Your task to perform on an android device: Open the calendar app, open the side menu, and click the "Day" option Image 0: 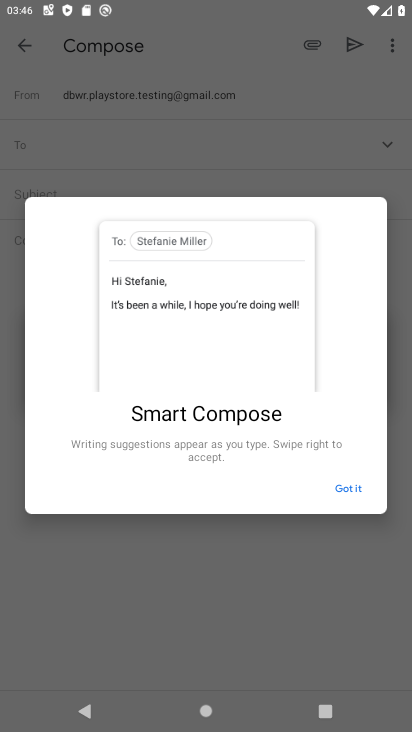
Step 0: press home button
Your task to perform on an android device: Open the calendar app, open the side menu, and click the "Day" option Image 1: 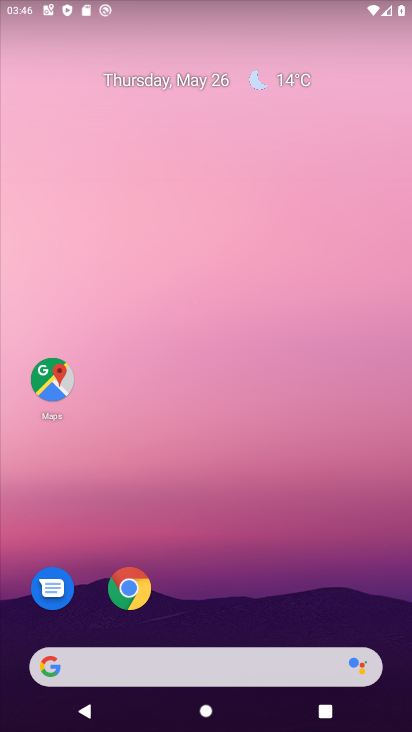
Step 1: drag from (262, 615) to (266, 176)
Your task to perform on an android device: Open the calendar app, open the side menu, and click the "Day" option Image 2: 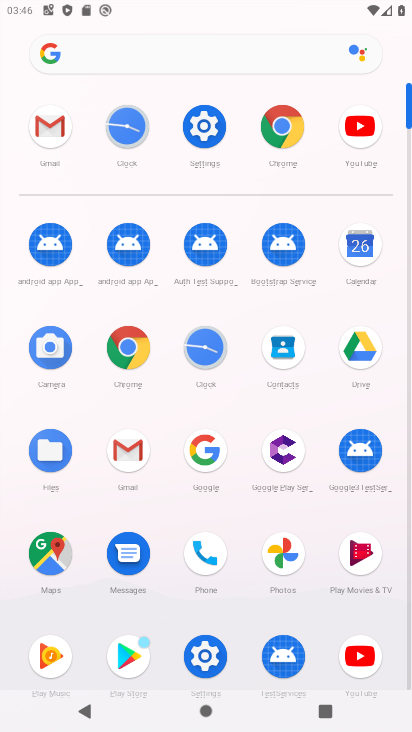
Step 2: click (205, 156)
Your task to perform on an android device: Open the calendar app, open the side menu, and click the "Day" option Image 3: 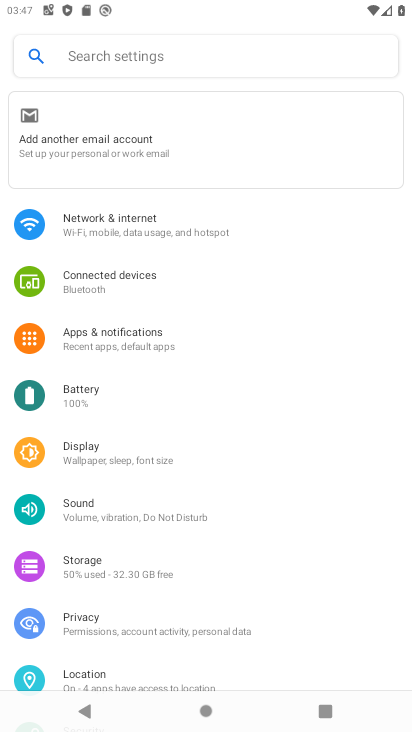
Step 3: press home button
Your task to perform on an android device: Open the calendar app, open the side menu, and click the "Day" option Image 4: 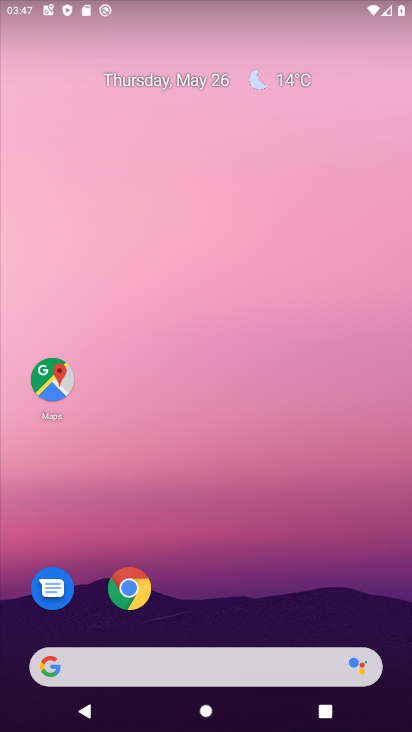
Step 4: drag from (287, 587) to (251, 110)
Your task to perform on an android device: Open the calendar app, open the side menu, and click the "Day" option Image 5: 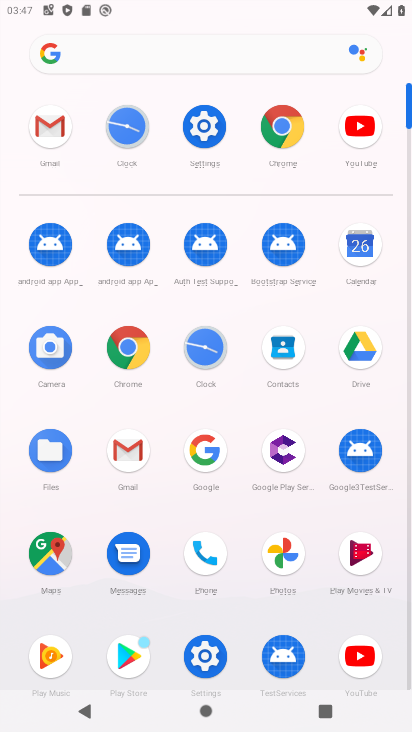
Step 5: click (358, 259)
Your task to perform on an android device: Open the calendar app, open the side menu, and click the "Day" option Image 6: 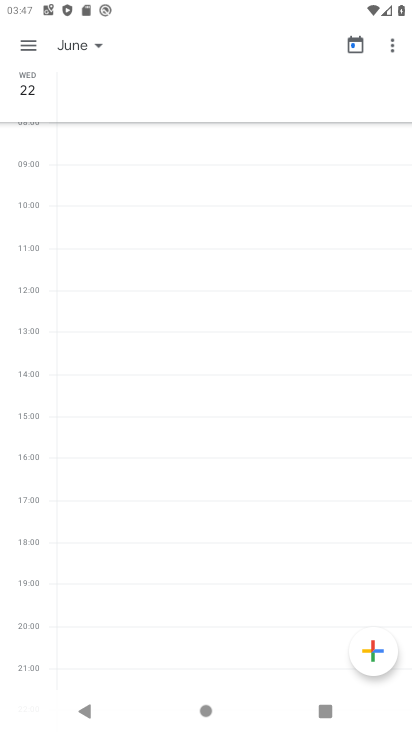
Step 6: click (32, 48)
Your task to perform on an android device: Open the calendar app, open the side menu, and click the "Day" option Image 7: 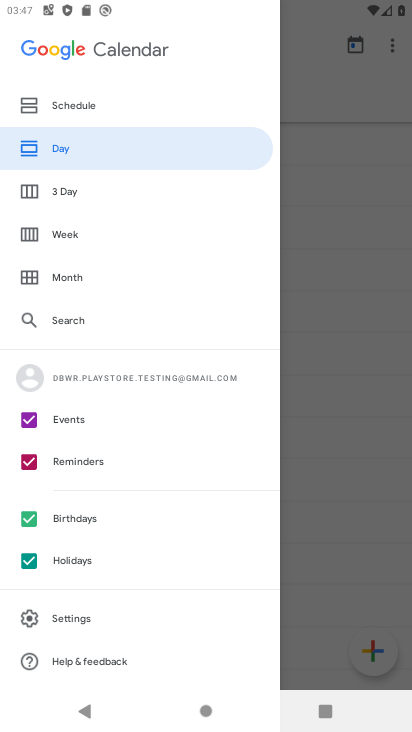
Step 7: click (98, 154)
Your task to perform on an android device: Open the calendar app, open the side menu, and click the "Day" option Image 8: 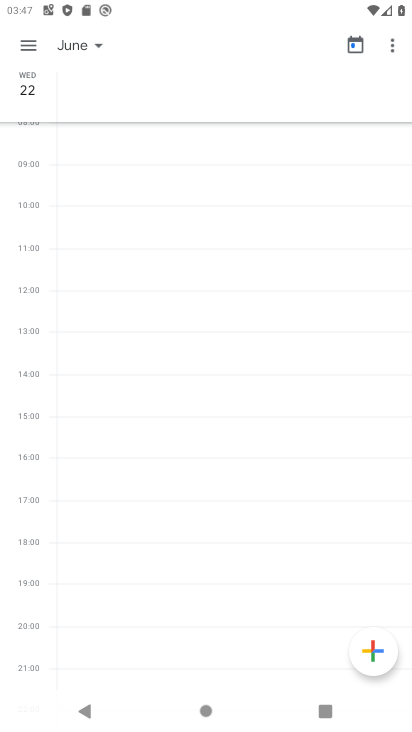
Step 8: task complete